Your task to perform on an android device: change the clock display to digital Image 0: 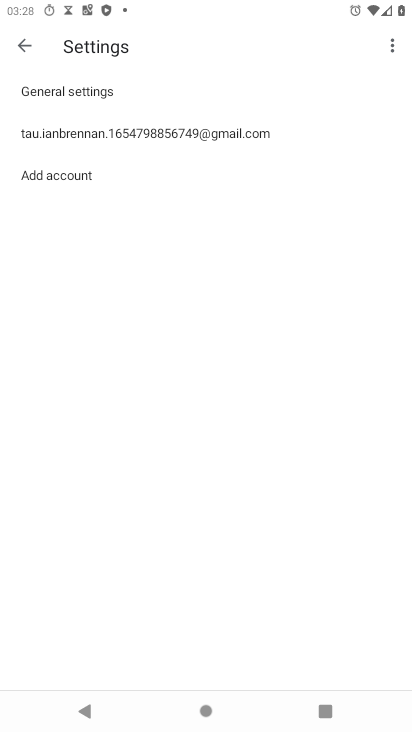
Step 0: press home button
Your task to perform on an android device: change the clock display to digital Image 1: 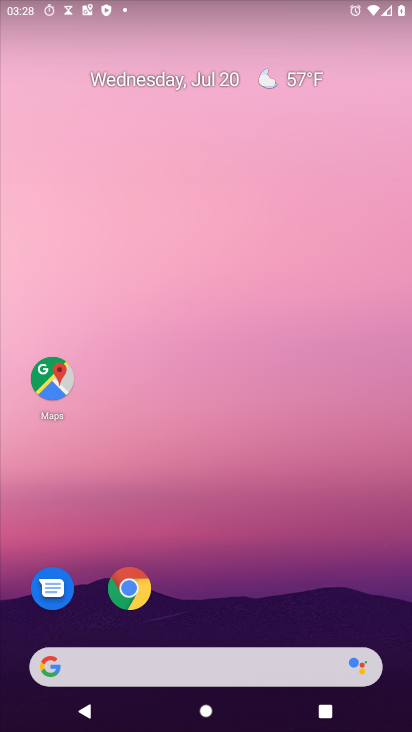
Step 1: drag from (231, 323) to (260, 0)
Your task to perform on an android device: change the clock display to digital Image 2: 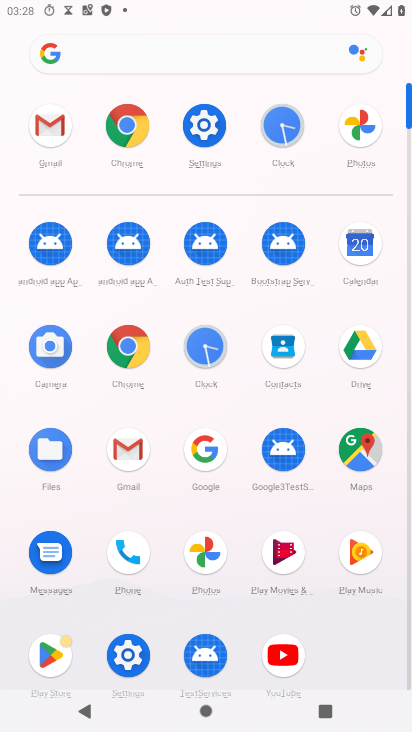
Step 2: click (211, 351)
Your task to perform on an android device: change the clock display to digital Image 3: 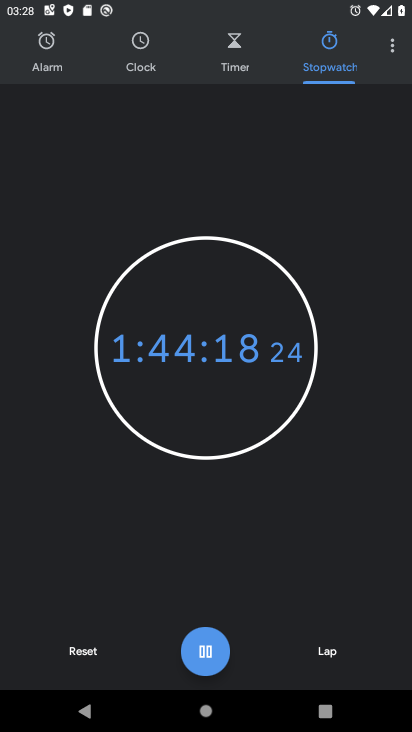
Step 3: click (396, 45)
Your task to perform on an android device: change the clock display to digital Image 4: 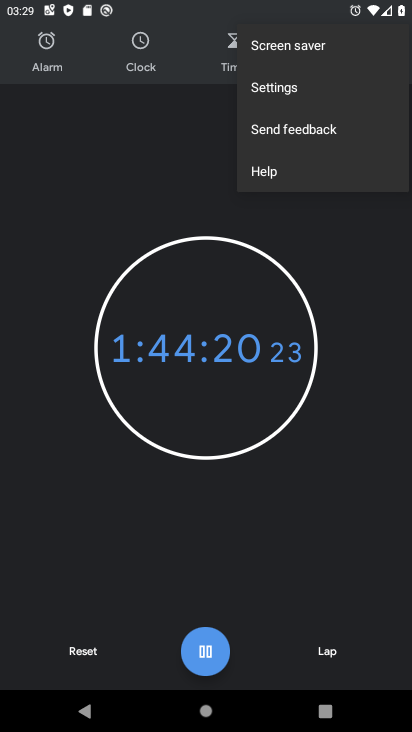
Step 4: click (302, 90)
Your task to perform on an android device: change the clock display to digital Image 5: 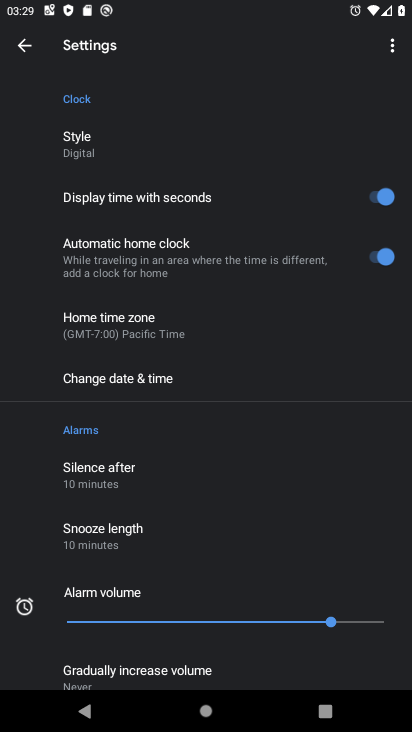
Step 5: task complete